Your task to perform on an android device: Go to Wikipedia Image 0: 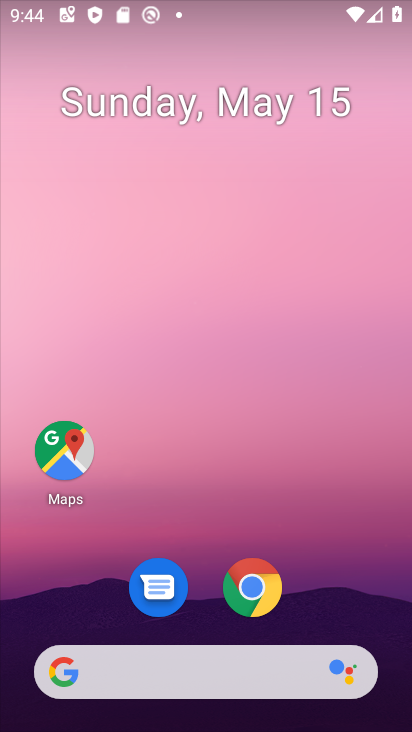
Step 0: drag from (379, 620) to (267, 170)
Your task to perform on an android device: Go to Wikipedia Image 1: 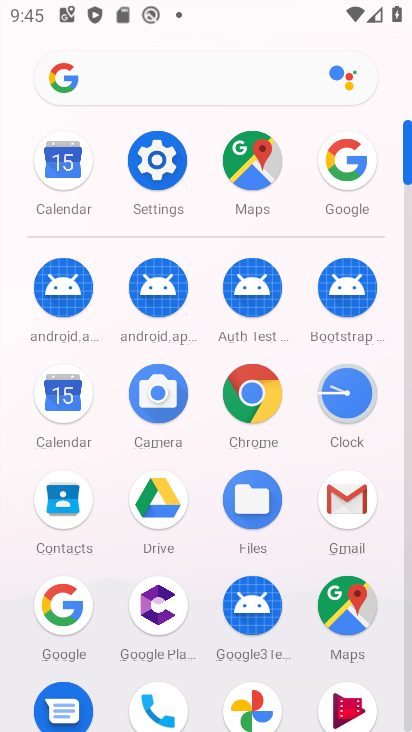
Step 1: click (231, 393)
Your task to perform on an android device: Go to Wikipedia Image 2: 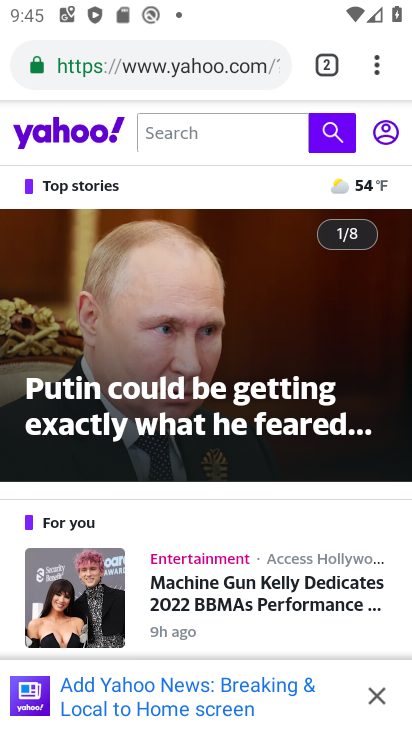
Step 2: press back button
Your task to perform on an android device: Go to Wikipedia Image 3: 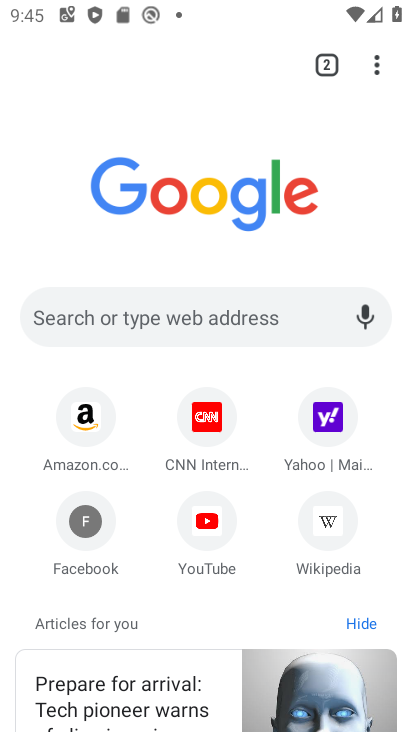
Step 3: click (325, 546)
Your task to perform on an android device: Go to Wikipedia Image 4: 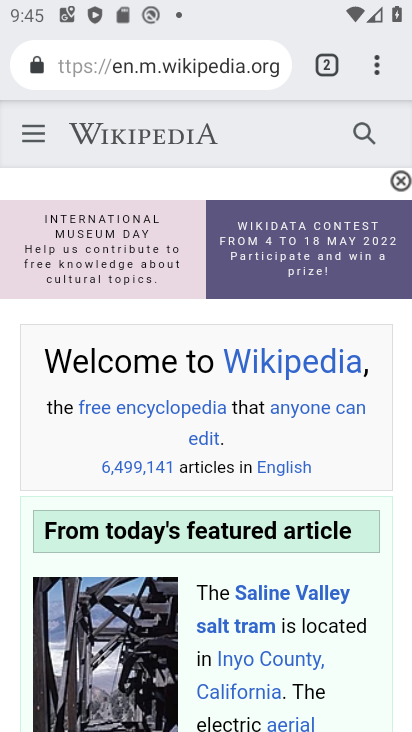
Step 4: task complete